Your task to perform on an android device: open app "HBO Max: Stream TV & Movies" (install if not already installed) Image 0: 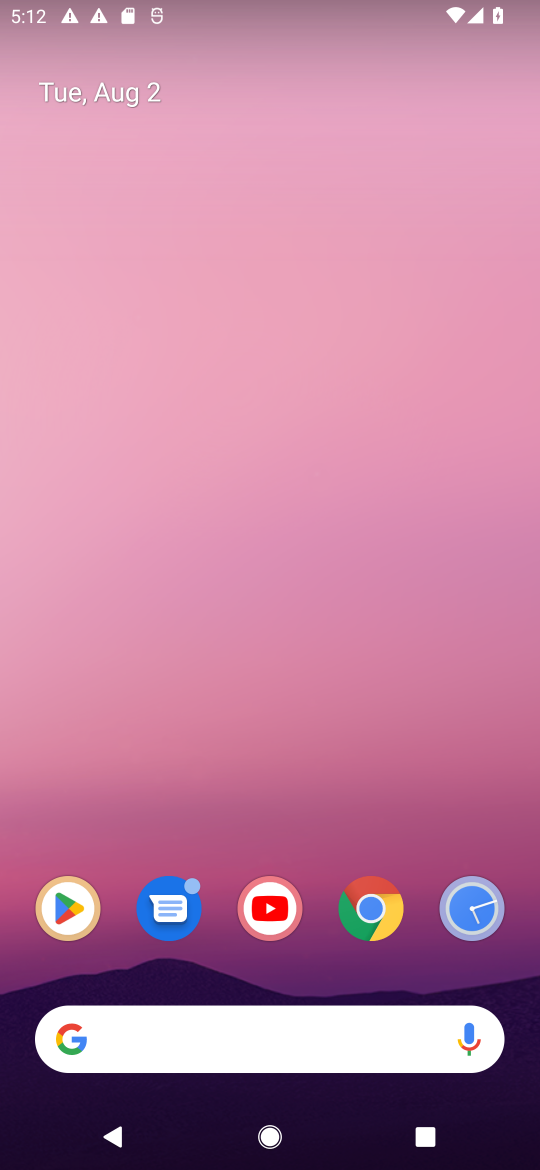
Step 0: click (62, 899)
Your task to perform on an android device: open app "HBO Max: Stream TV & Movies" (install if not already installed) Image 1: 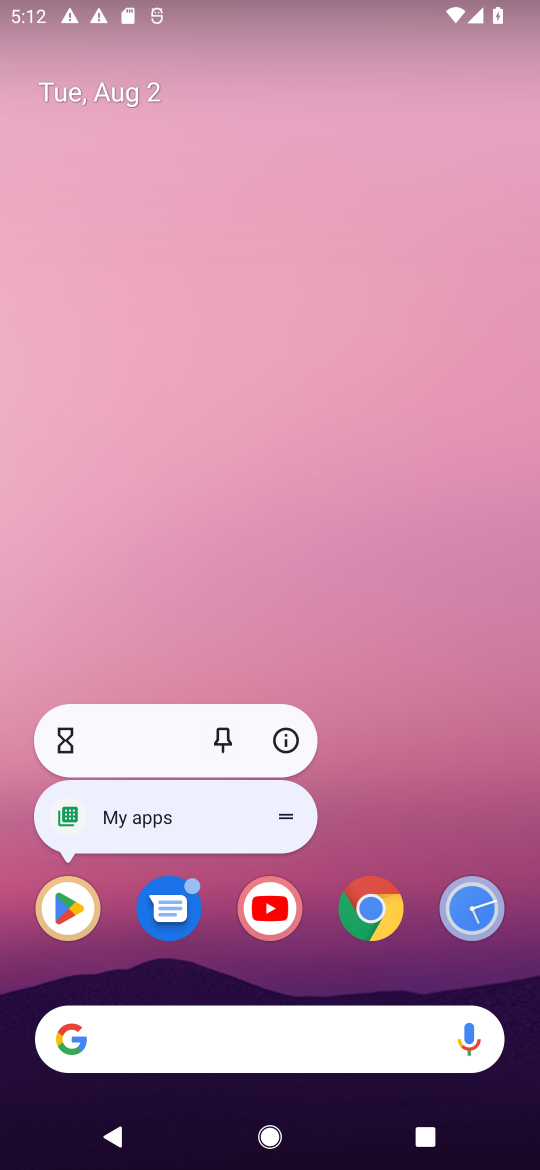
Step 1: click (69, 908)
Your task to perform on an android device: open app "HBO Max: Stream TV & Movies" (install if not already installed) Image 2: 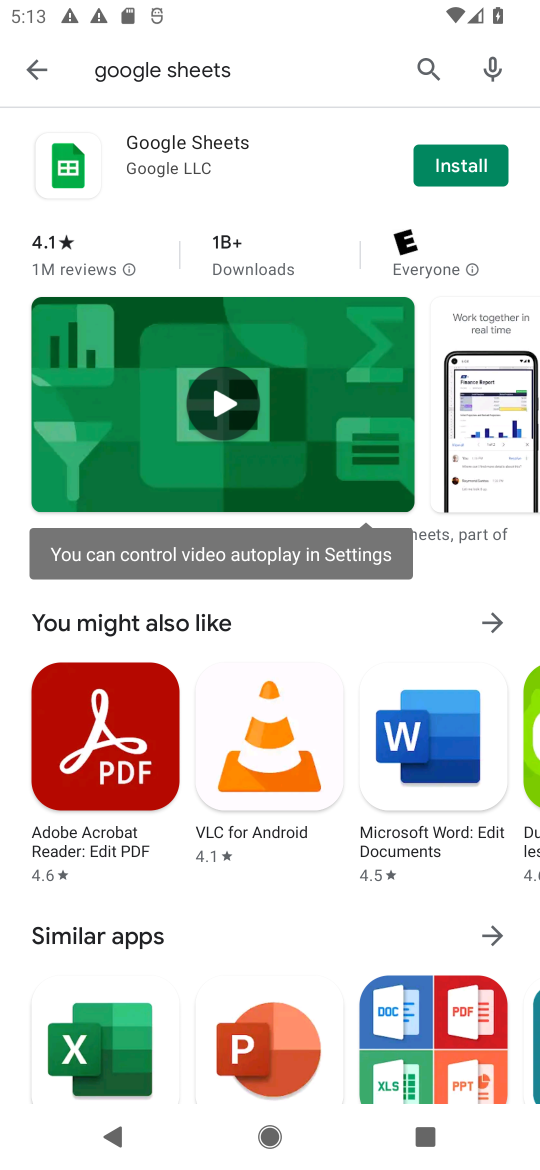
Step 2: click (418, 69)
Your task to perform on an android device: open app "HBO Max: Stream TV & Movies" (install if not already installed) Image 3: 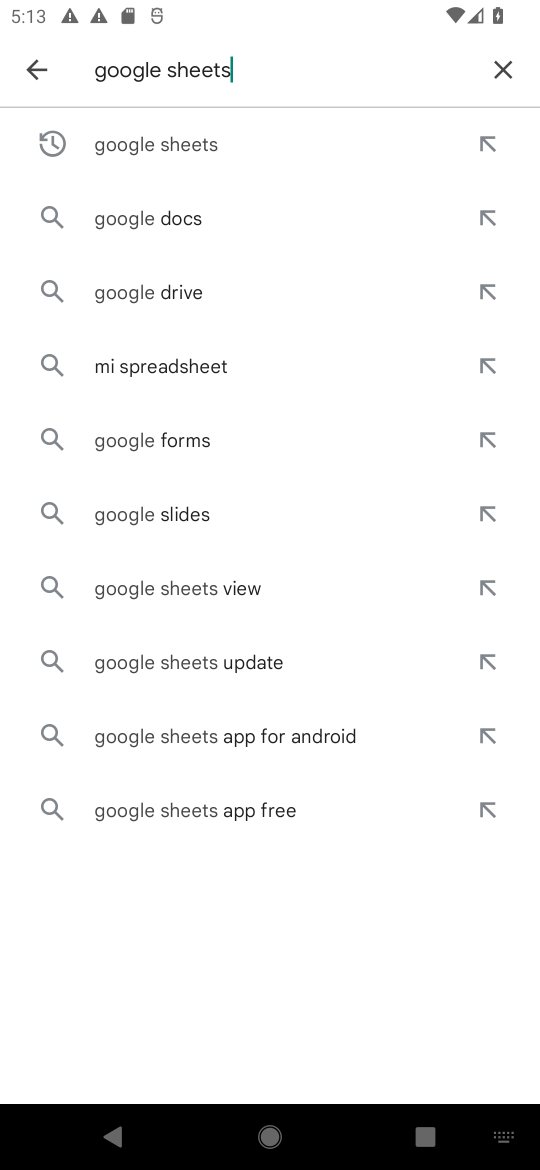
Step 3: click (498, 65)
Your task to perform on an android device: open app "HBO Max: Stream TV & Movies" (install if not already installed) Image 4: 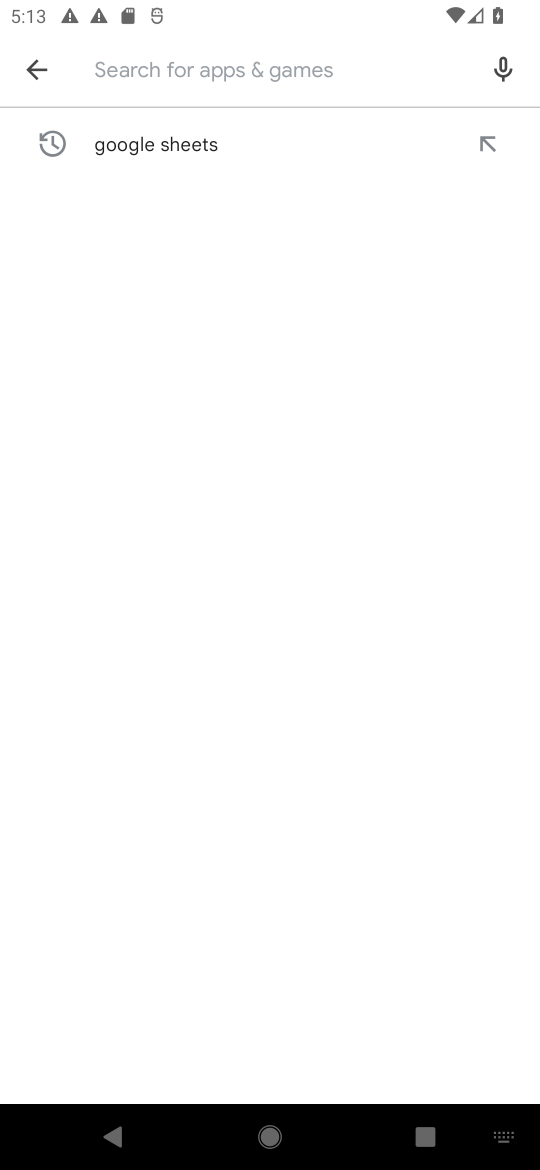
Step 4: type "HBO Max: Stream TV & Movies"
Your task to perform on an android device: open app "HBO Max: Stream TV & Movies" (install if not already installed) Image 5: 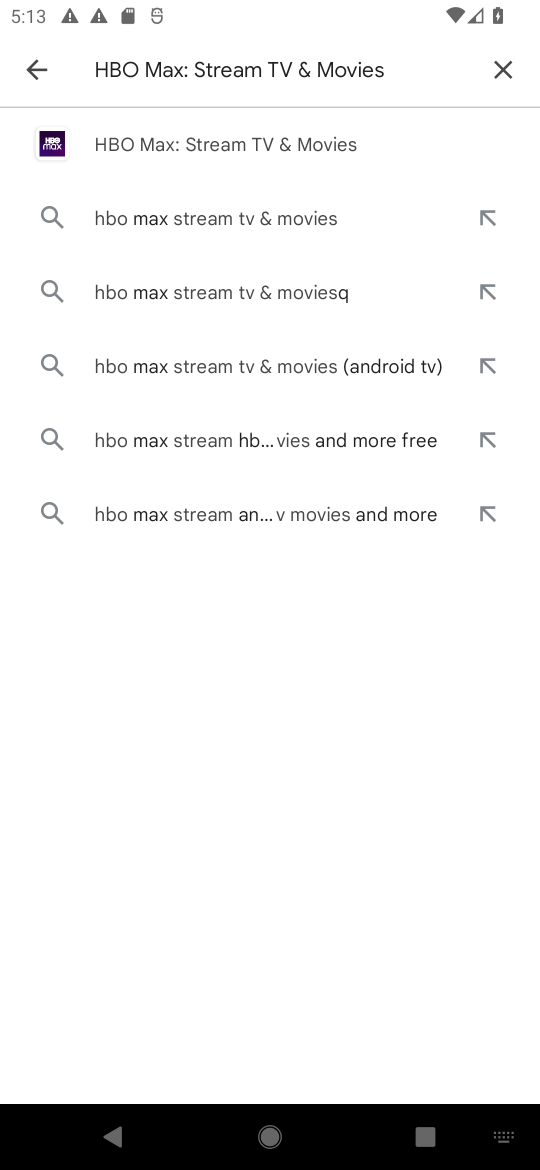
Step 5: click (159, 133)
Your task to perform on an android device: open app "HBO Max: Stream TV & Movies" (install if not already installed) Image 6: 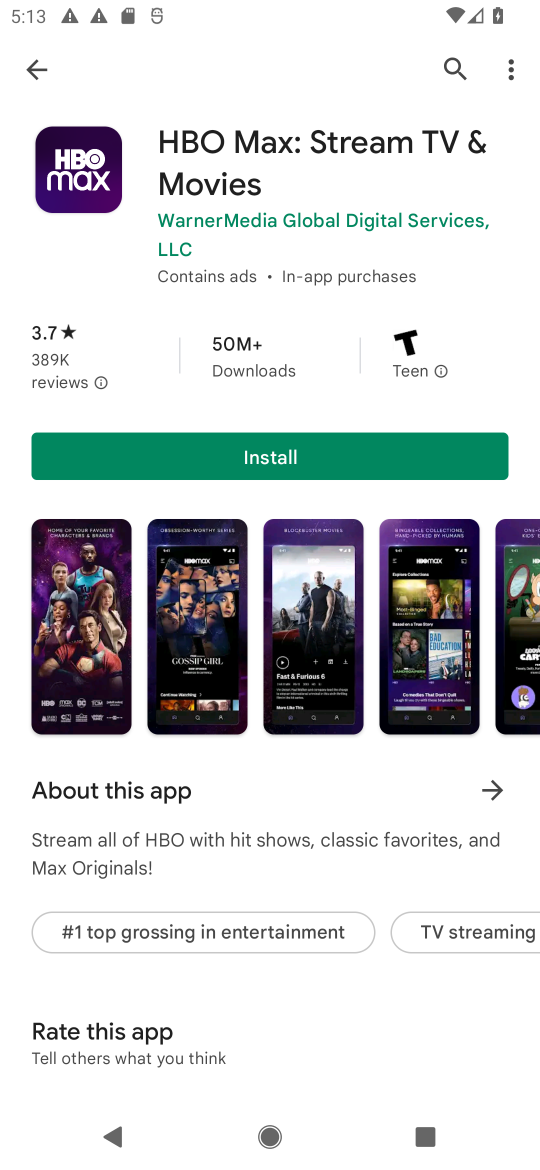
Step 6: click (281, 433)
Your task to perform on an android device: open app "HBO Max: Stream TV & Movies" (install if not already installed) Image 7: 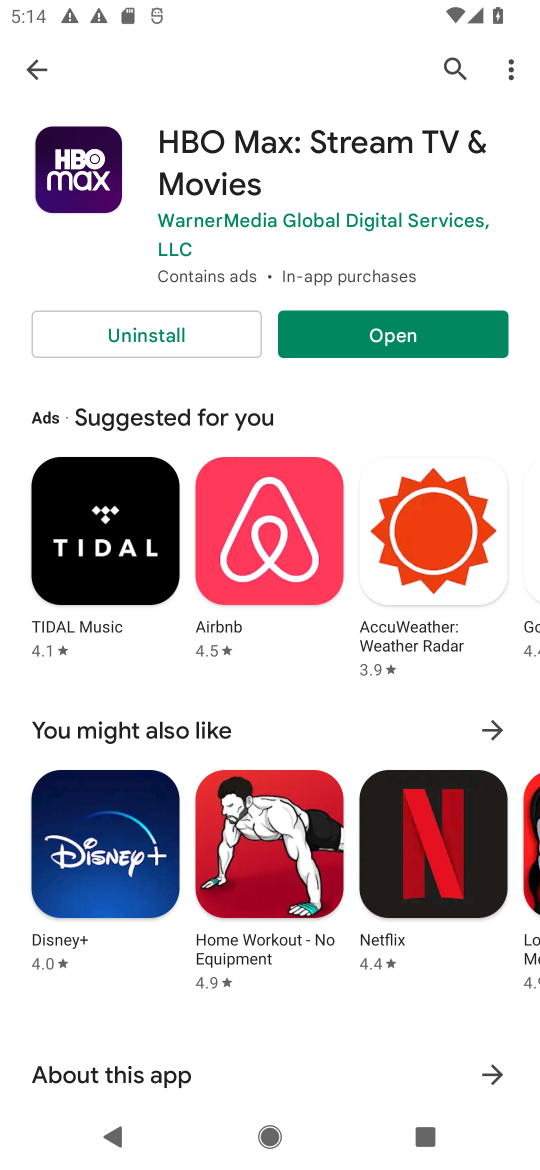
Step 7: click (401, 335)
Your task to perform on an android device: open app "HBO Max: Stream TV & Movies" (install if not already installed) Image 8: 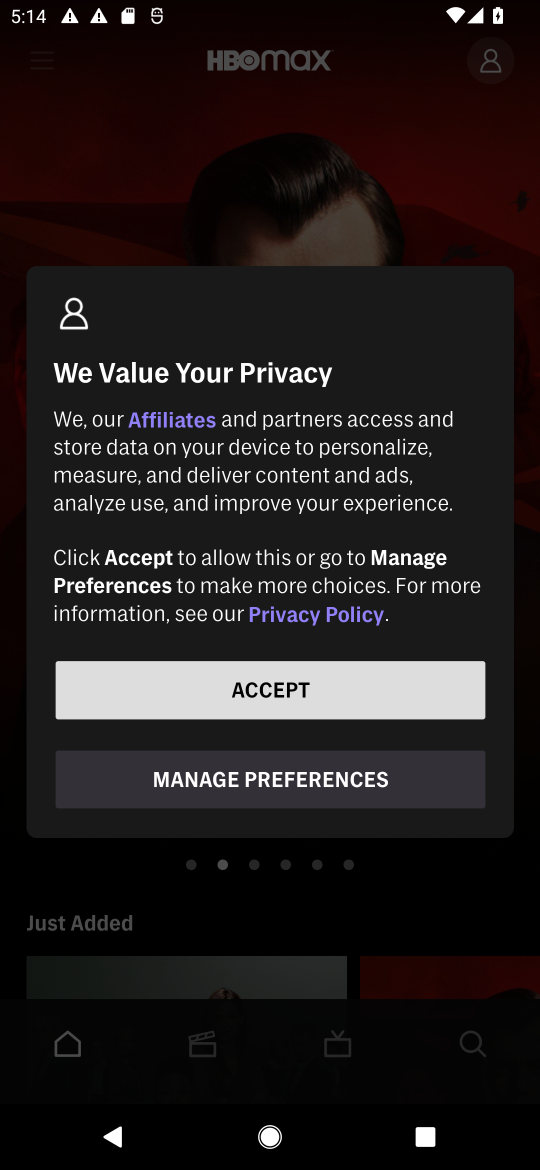
Step 8: click (269, 689)
Your task to perform on an android device: open app "HBO Max: Stream TV & Movies" (install if not already installed) Image 9: 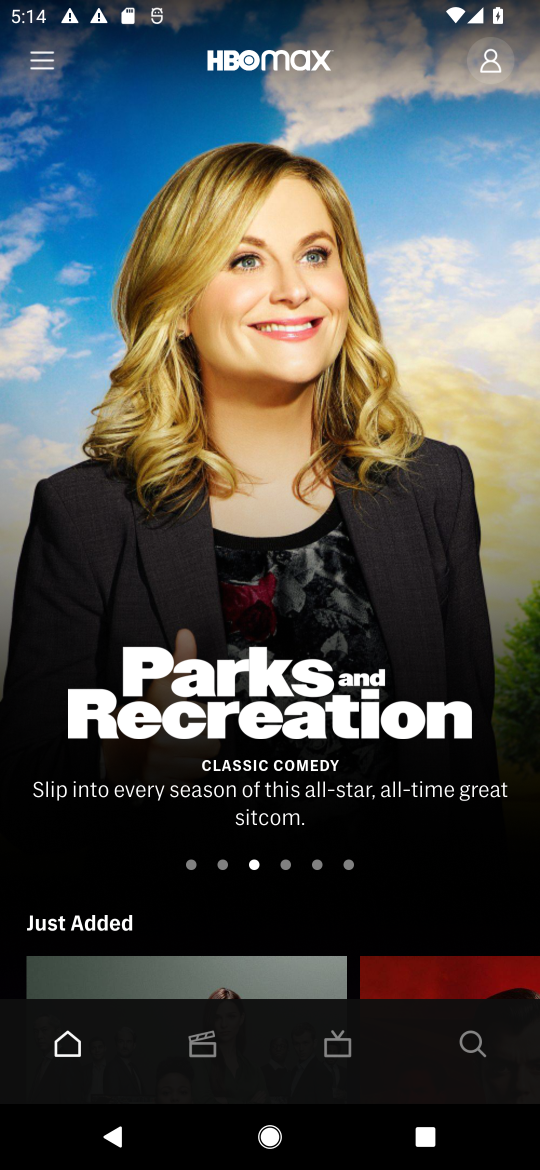
Step 9: task complete